Your task to perform on an android device: Go to location settings Image 0: 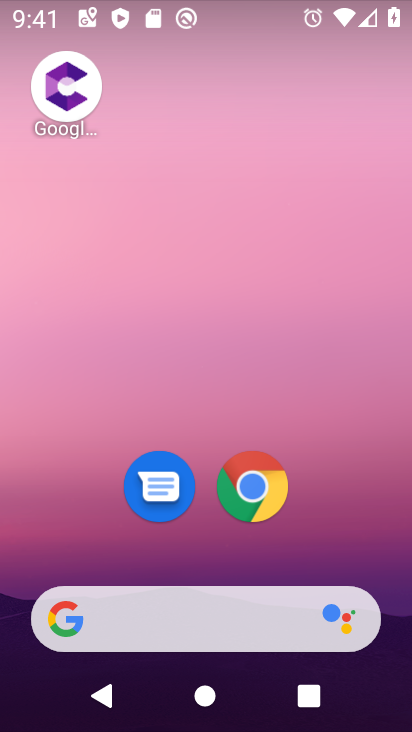
Step 0: drag from (337, 514) to (330, 120)
Your task to perform on an android device: Go to location settings Image 1: 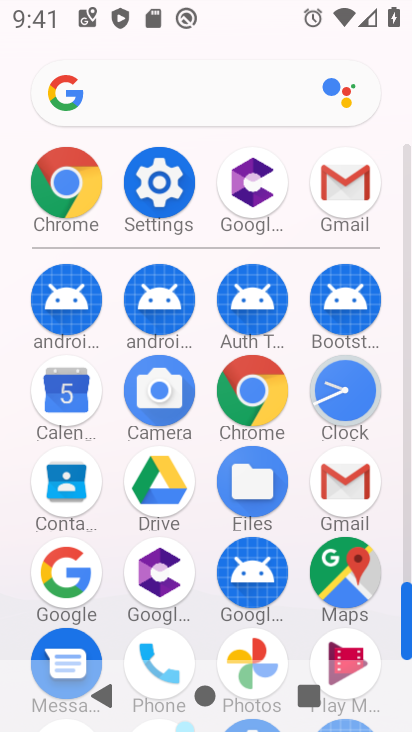
Step 1: click (143, 195)
Your task to perform on an android device: Go to location settings Image 2: 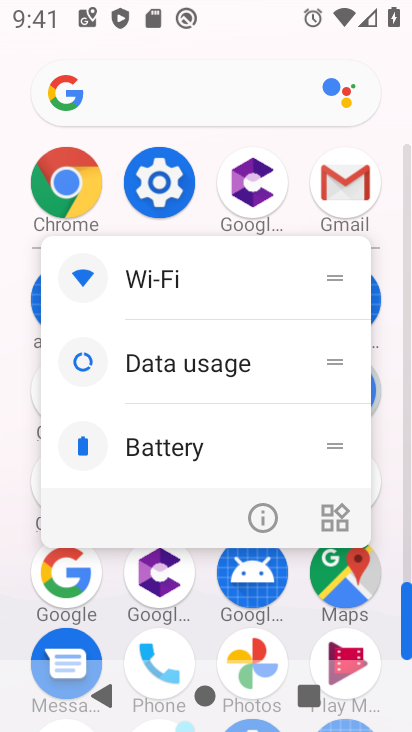
Step 2: click (150, 188)
Your task to perform on an android device: Go to location settings Image 3: 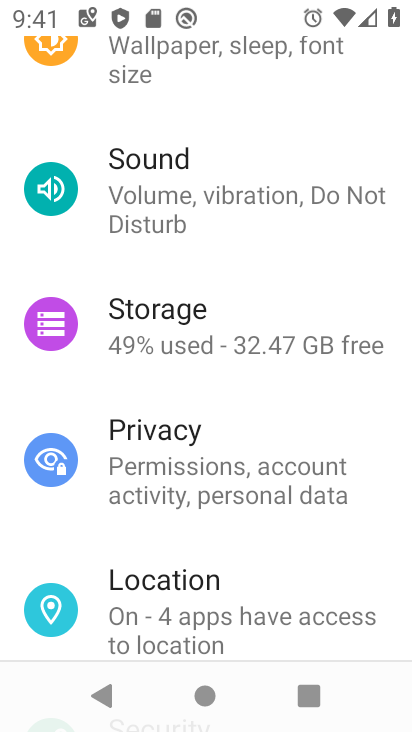
Step 3: click (185, 588)
Your task to perform on an android device: Go to location settings Image 4: 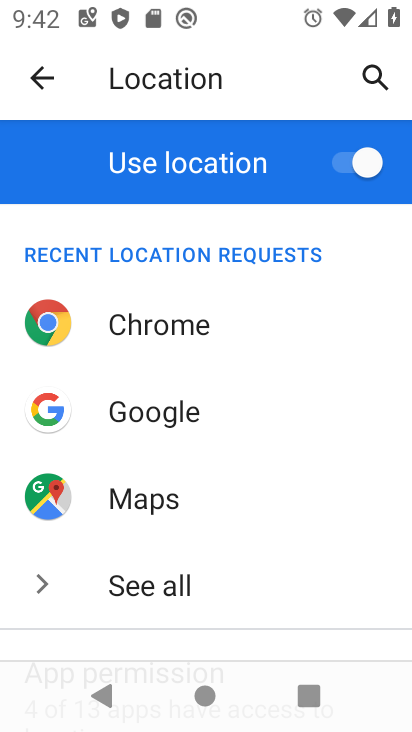
Step 4: task complete